Your task to perform on an android device: Do I have any events today? Image 0: 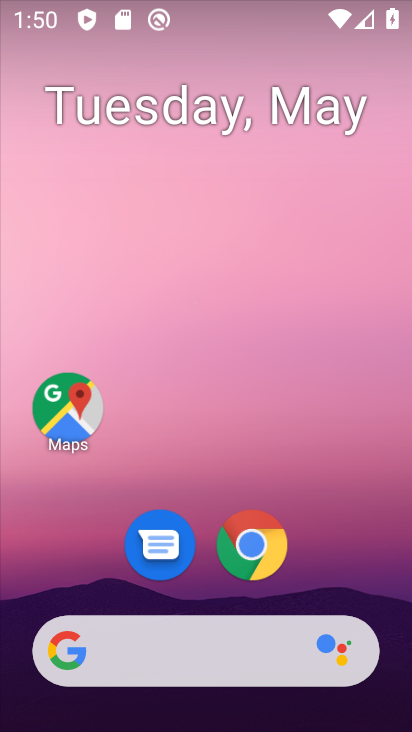
Step 0: drag from (331, 555) to (221, 3)
Your task to perform on an android device: Do I have any events today? Image 1: 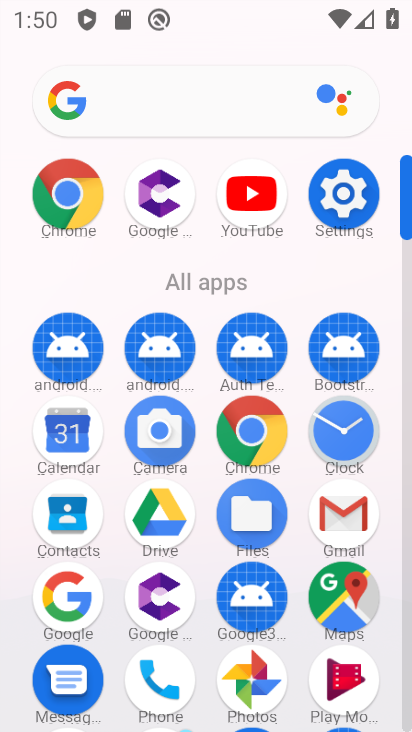
Step 1: drag from (9, 583) to (8, 289)
Your task to perform on an android device: Do I have any events today? Image 2: 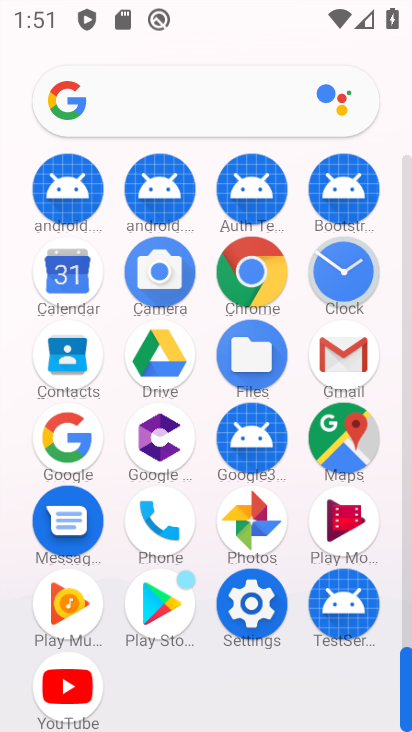
Step 2: drag from (19, 513) to (16, 203)
Your task to perform on an android device: Do I have any events today? Image 3: 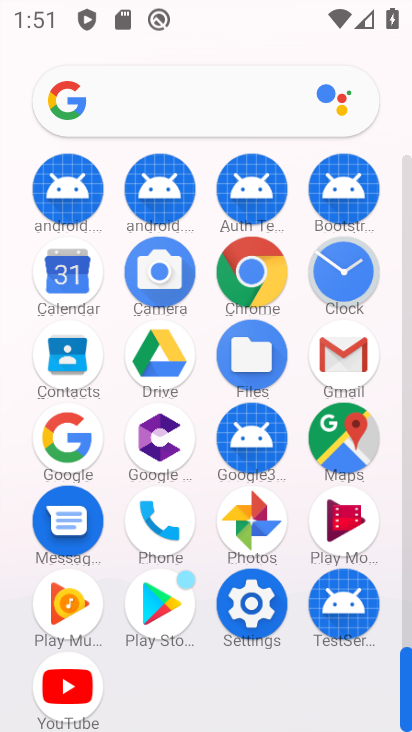
Step 3: click (62, 267)
Your task to perform on an android device: Do I have any events today? Image 4: 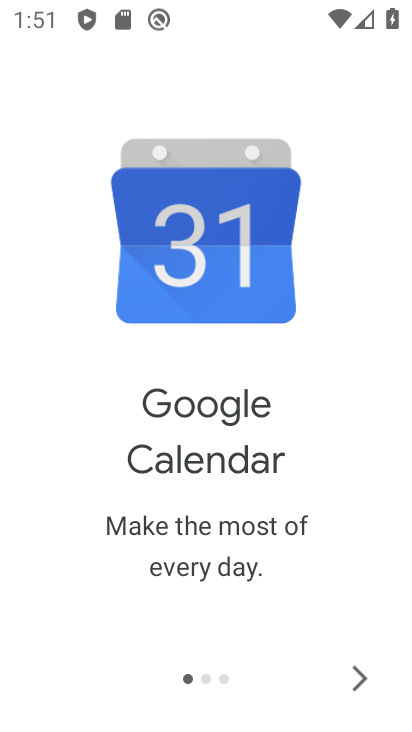
Step 4: click (343, 669)
Your task to perform on an android device: Do I have any events today? Image 5: 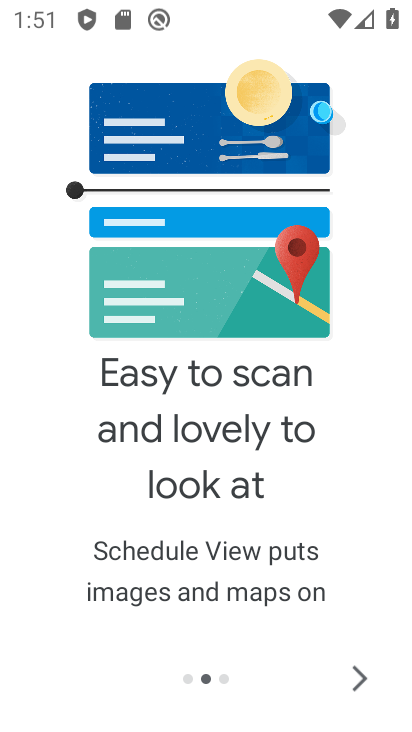
Step 5: click (343, 669)
Your task to perform on an android device: Do I have any events today? Image 6: 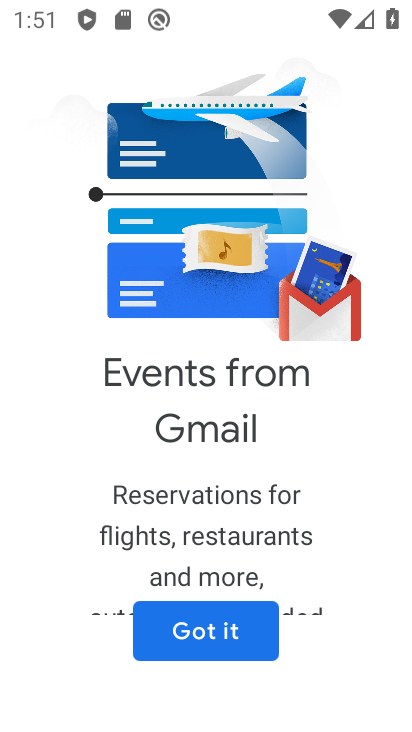
Step 6: click (201, 635)
Your task to perform on an android device: Do I have any events today? Image 7: 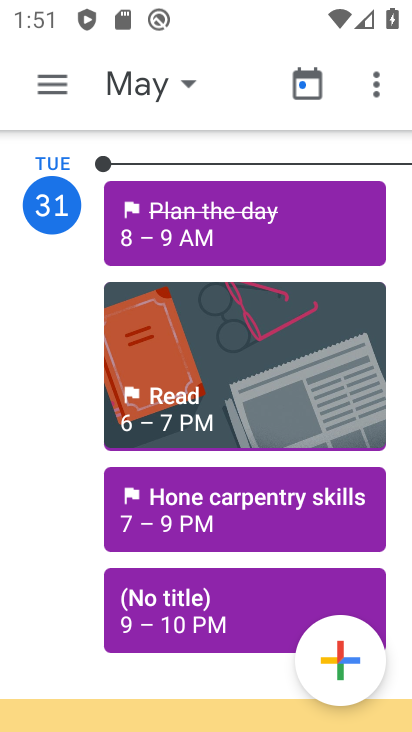
Step 7: click (59, 83)
Your task to perform on an android device: Do I have any events today? Image 8: 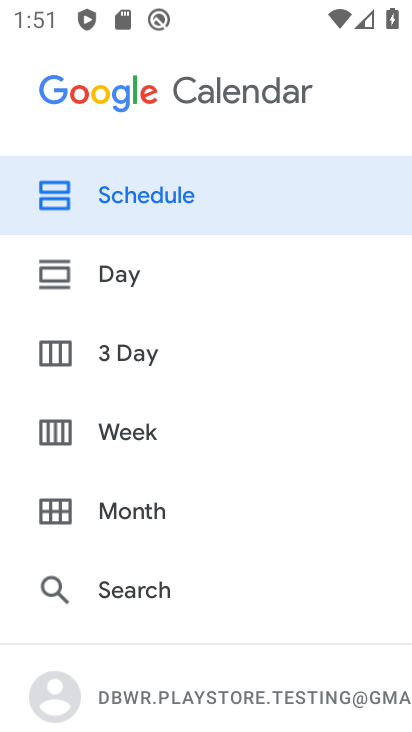
Step 8: click (142, 270)
Your task to perform on an android device: Do I have any events today? Image 9: 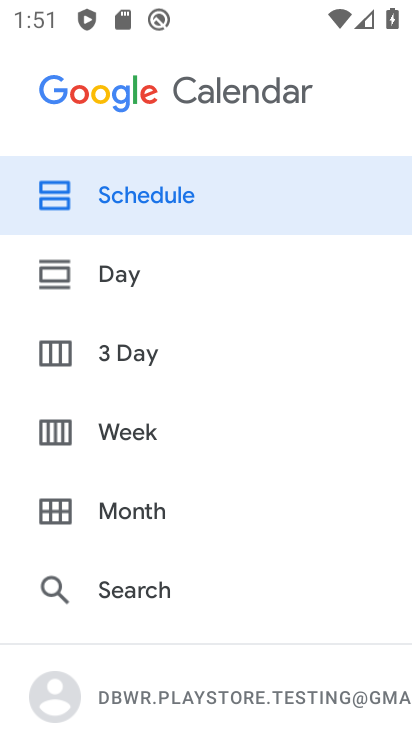
Step 9: click (141, 271)
Your task to perform on an android device: Do I have any events today? Image 10: 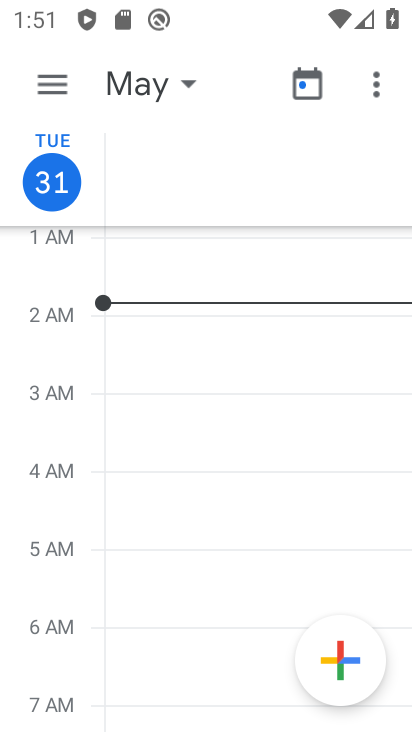
Step 10: task complete